Your task to perform on an android device: turn off javascript in the chrome app Image 0: 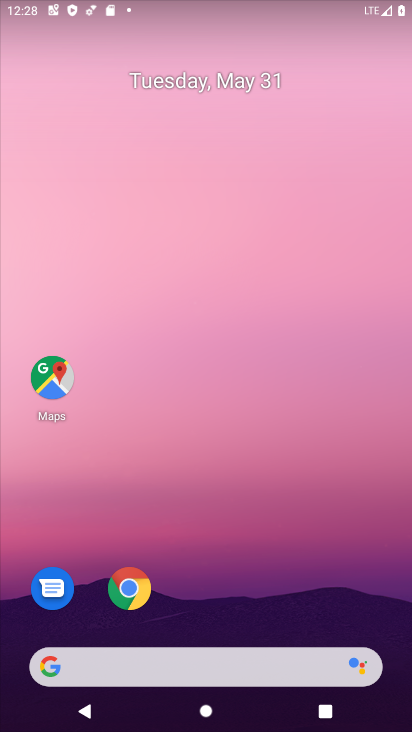
Step 0: press home button
Your task to perform on an android device: turn off javascript in the chrome app Image 1: 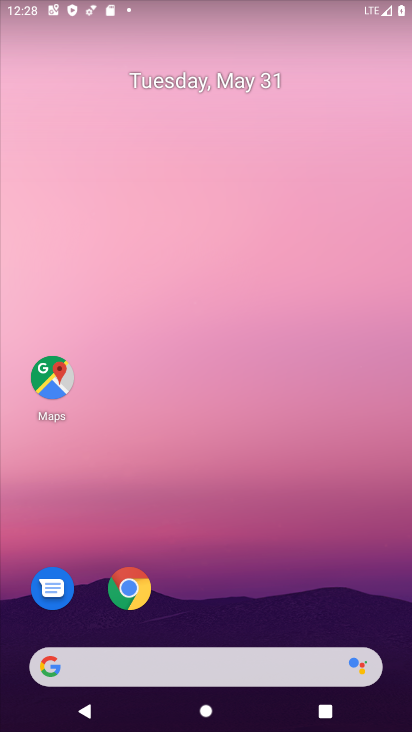
Step 1: click (125, 576)
Your task to perform on an android device: turn off javascript in the chrome app Image 2: 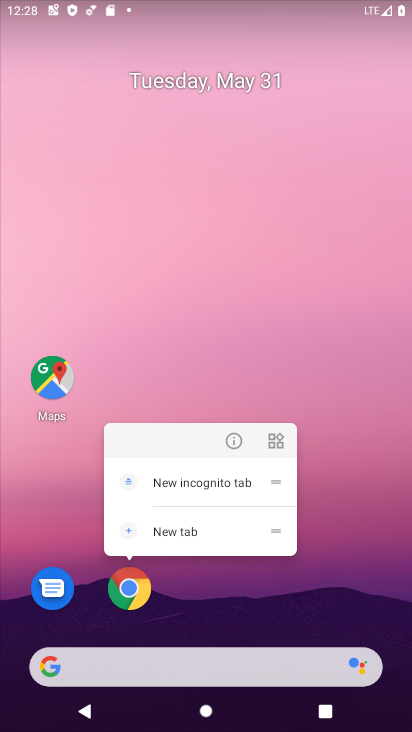
Step 2: click (131, 583)
Your task to perform on an android device: turn off javascript in the chrome app Image 3: 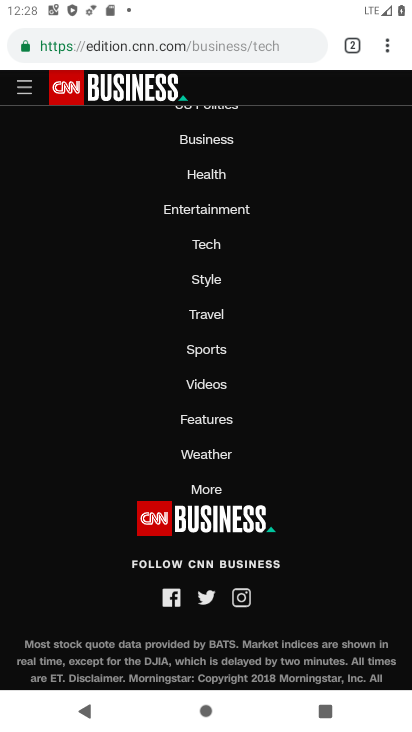
Step 3: click (385, 54)
Your task to perform on an android device: turn off javascript in the chrome app Image 4: 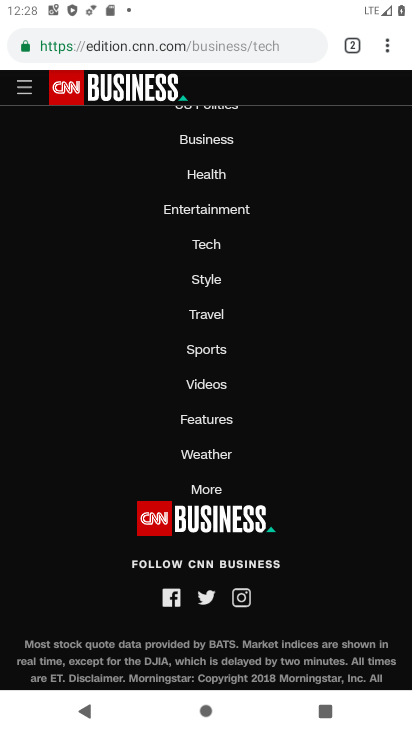
Step 4: click (391, 48)
Your task to perform on an android device: turn off javascript in the chrome app Image 5: 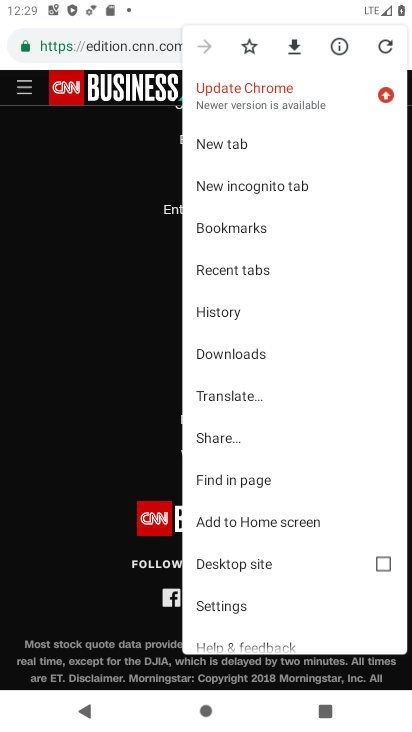
Step 5: click (253, 602)
Your task to perform on an android device: turn off javascript in the chrome app Image 6: 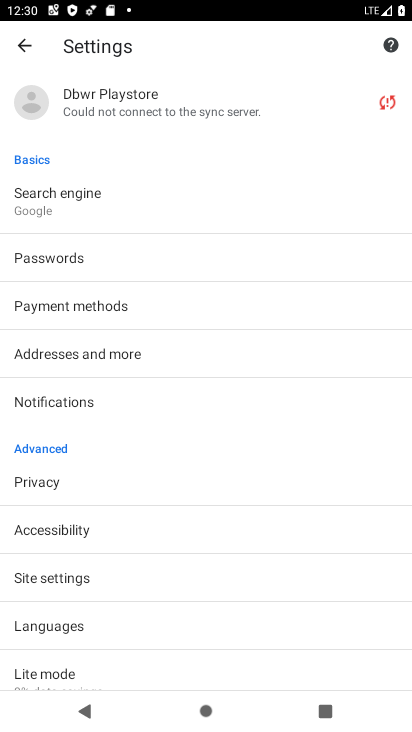
Step 6: click (101, 573)
Your task to perform on an android device: turn off javascript in the chrome app Image 7: 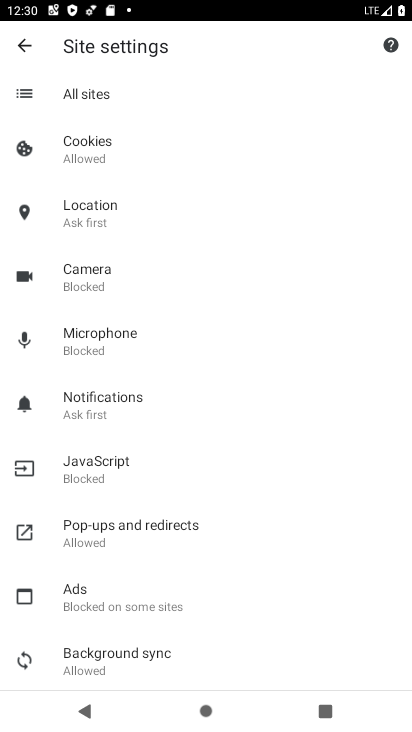
Step 7: click (128, 485)
Your task to perform on an android device: turn off javascript in the chrome app Image 8: 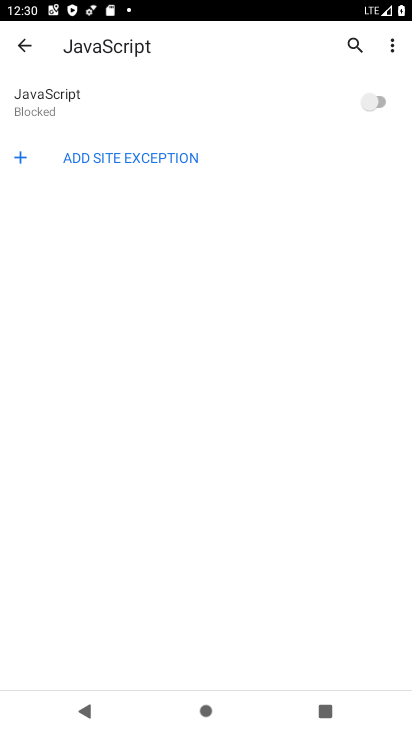
Step 8: task complete